Your task to perform on an android device: toggle show notifications on the lock screen Image 0: 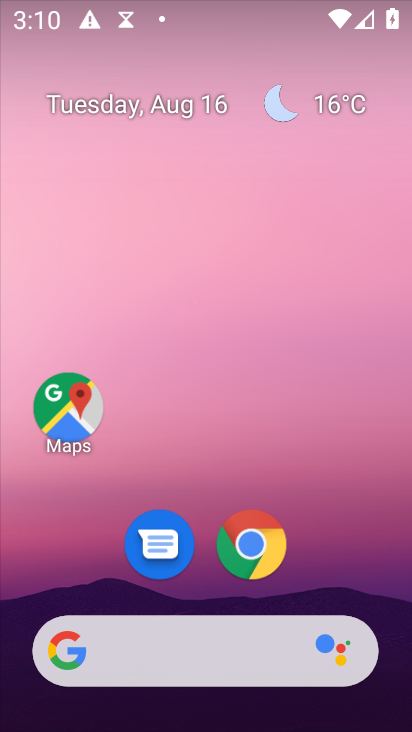
Step 0: drag from (186, 655) to (238, 128)
Your task to perform on an android device: toggle show notifications on the lock screen Image 1: 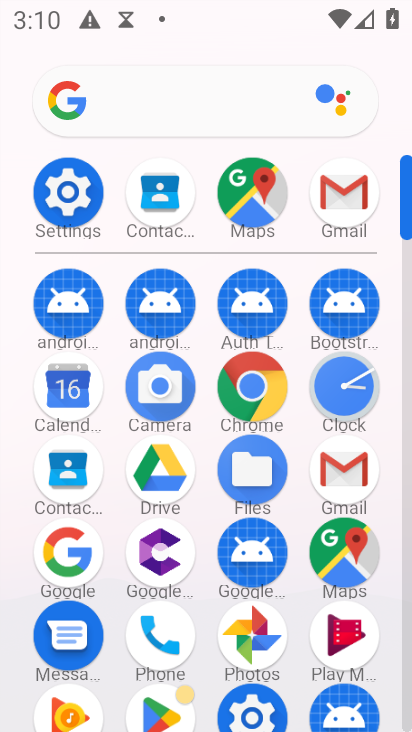
Step 1: click (68, 193)
Your task to perform on an android device: toggle show notifications on the lock screen Image 2: 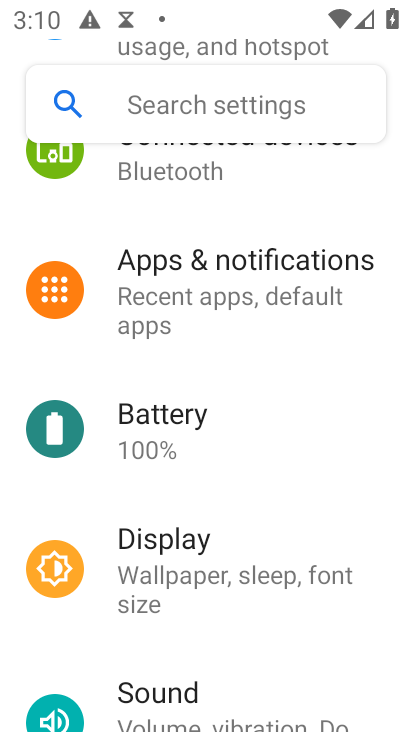
Step 2: click (230, 260)
Your task to perform on an android device: toggle show notifications on the lock screen Image 3: 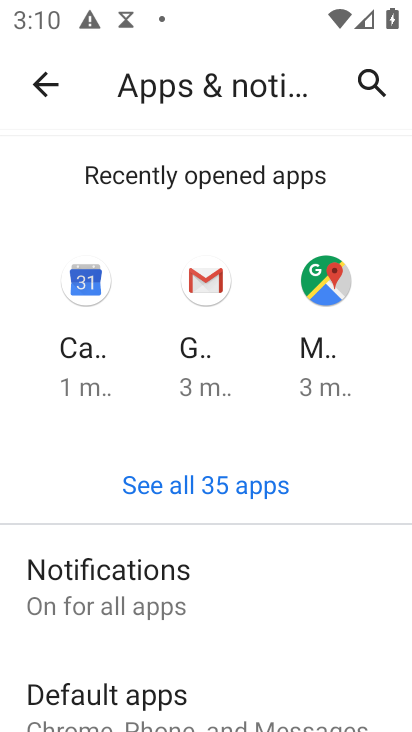
Step 3: click (128, 564)
Your task to perform on an android device: toggle show notifications on the lock screen Image 4: 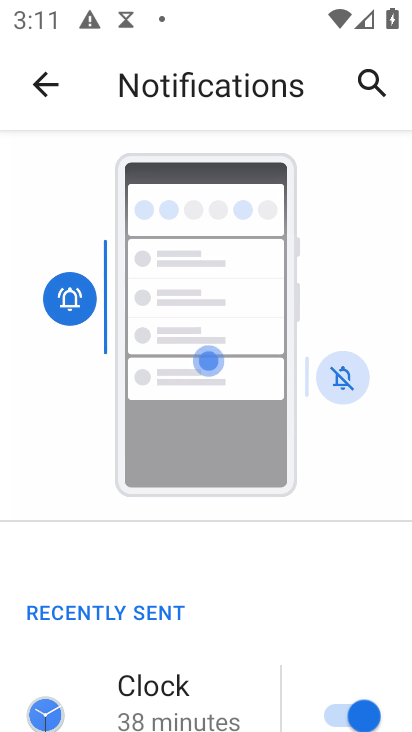
Step 4: drag from (199, 661) to (204, 341)
Your task to perform on an android device: toggle show notifications on the lock screen Image 5: 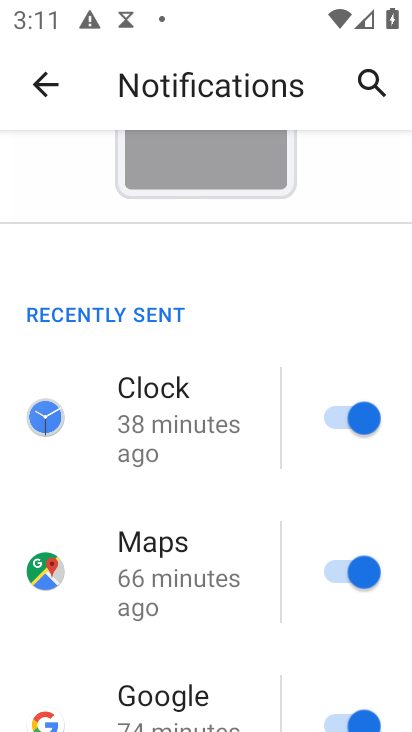
Step 5: drag from (176, 490) to (194, 208)
Your task to perform on an android device: toggle show notifications on the lock screen Image 6: 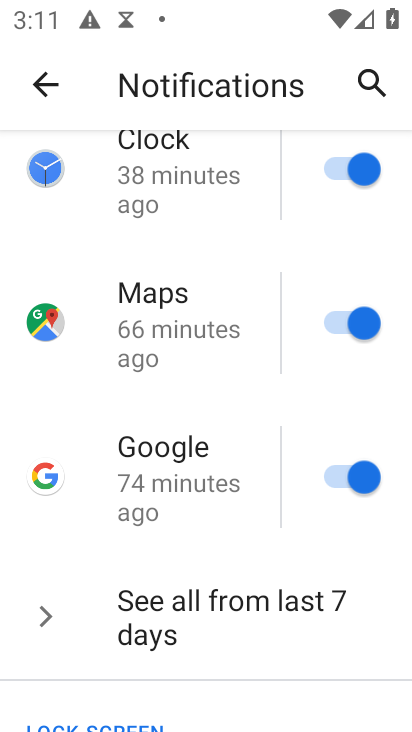
Step 6: drag from (190, 570) to (211, 272)
Your task to perform on an android device: toggle show notifications on the lock screen Image 7: 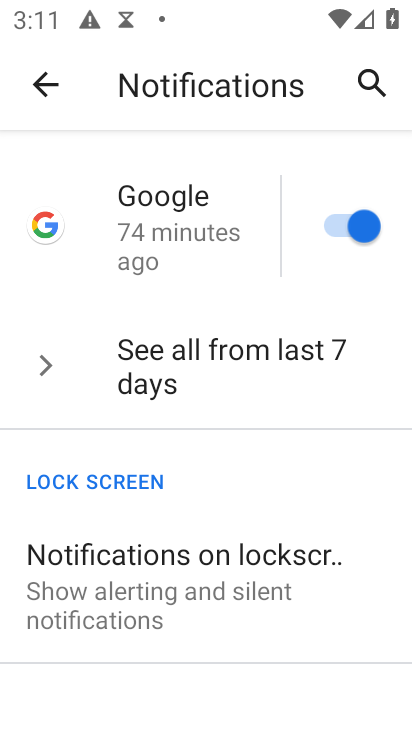
Step 7: drag from (128, 522) to (196, 283)
Your task to perform on an android device: toggle show notifications on the lock screen Image 8: 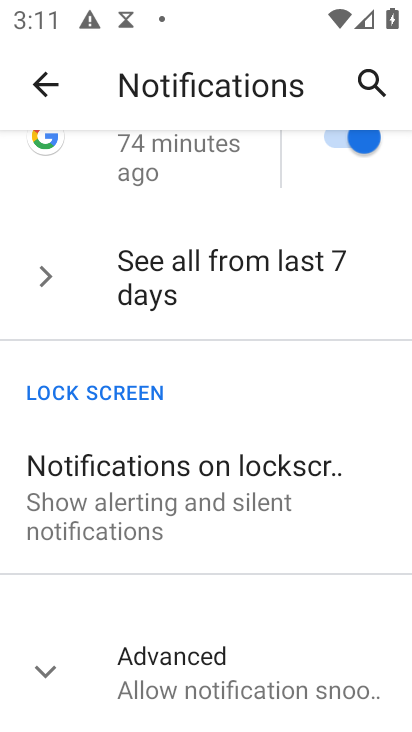
Step 8: click (237, 471)
Your task to perform on an android device: toggle show notifications on the lock screen Image 9: 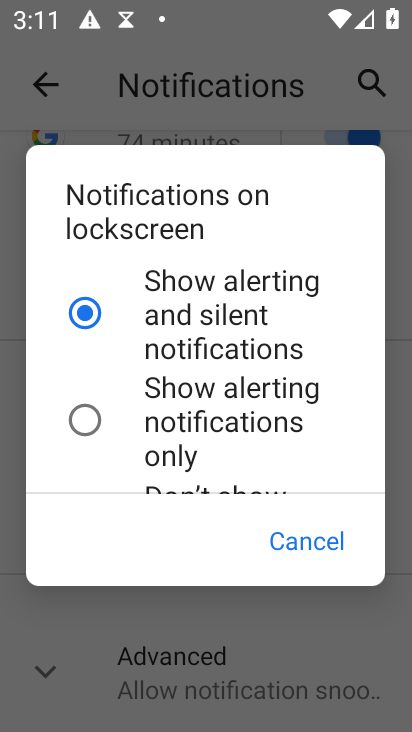
Step 9: drag from (230, 462) to (262, 307)
Your task to perform on an android device: toggle show notifications on the lock screen Image 10: 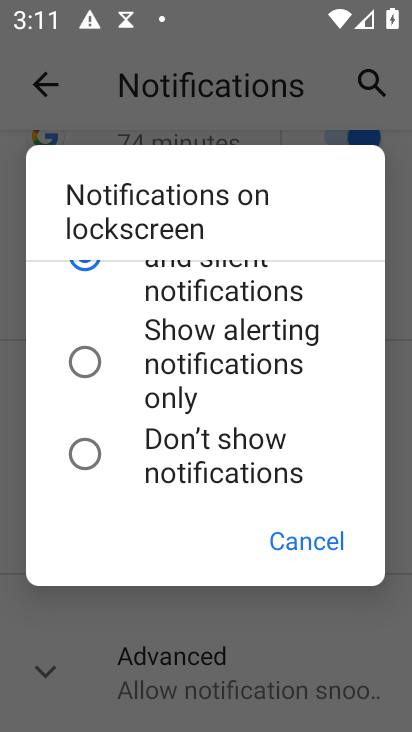
Step 10: click (89, 454)
Your task to perform on an android device: toggle show notifications on the lock screen Image 11: 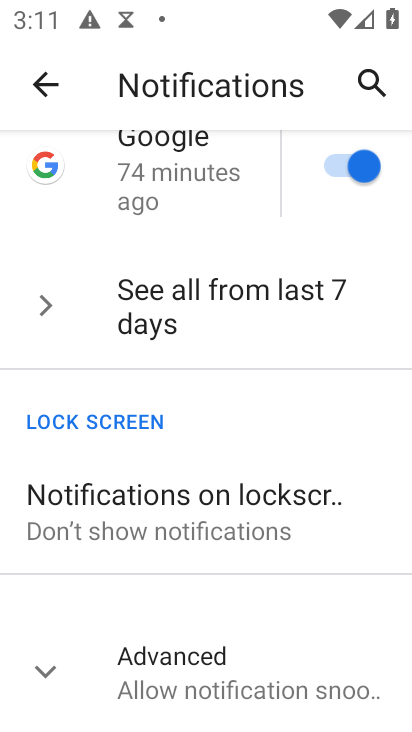
Step 11: task complete